Your task to perform on an android device: Go to privacy settings Image 0: 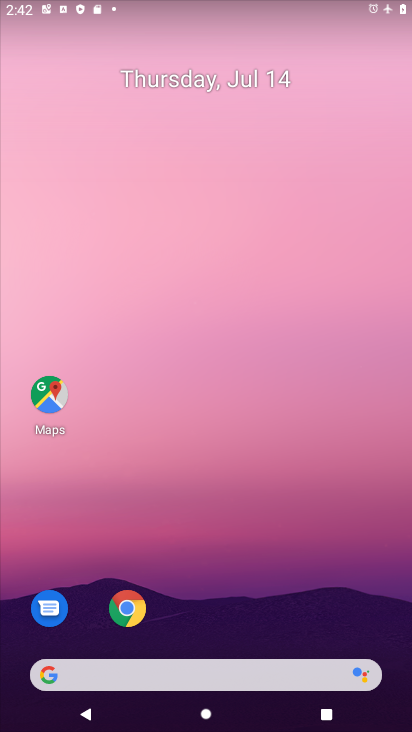
Step 0: drag from (378, 615) to (351, 147)
Your task to perform on an android device: Go to privacy settings Image 1: 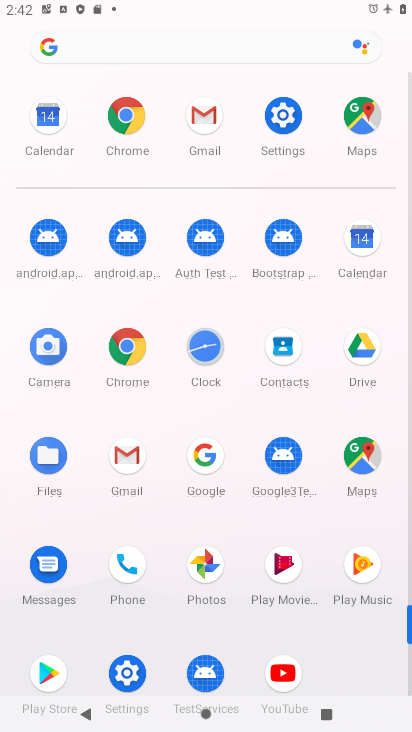
Step 1: click (127, 674)
Your task to perform on an android device: Go to privacy settings Image 2: 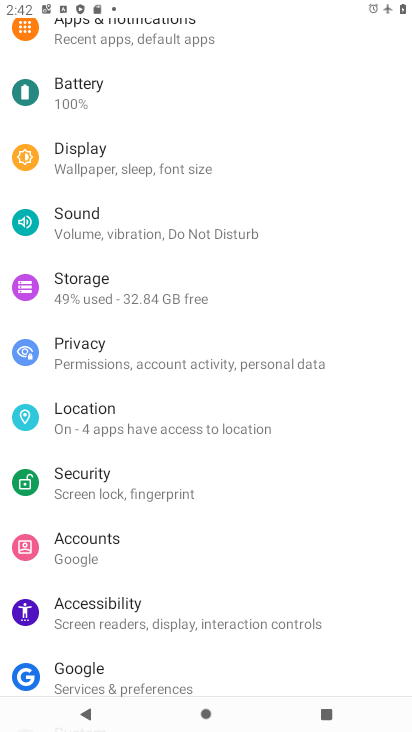
Step 2: click (110, 351)
Your task to perform on an android device: Go to privacy settings Image 3: 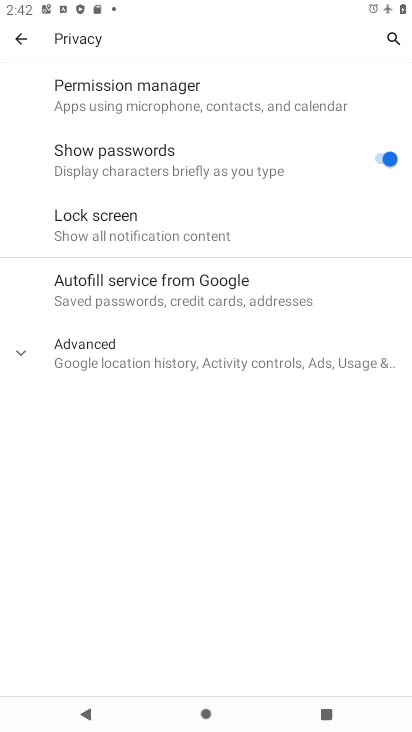
Step 3: click (14, 355)
Your task to perform on an android device: Go to privacy settings Image 4: 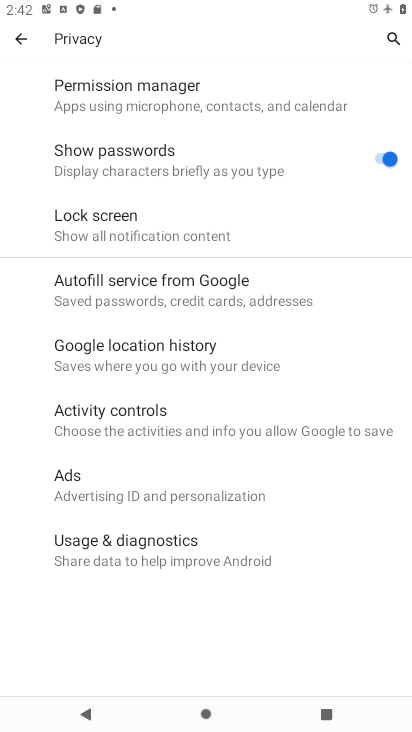
Step 4: task complete